Your task to perform on an android device: Open Wikipedia Image 0: 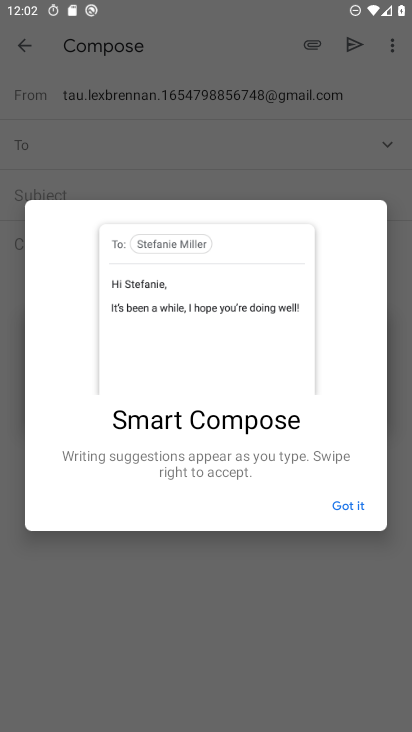
Step 0: press home button
Your task to perform on an android device: Open Wikipedia Image 1: 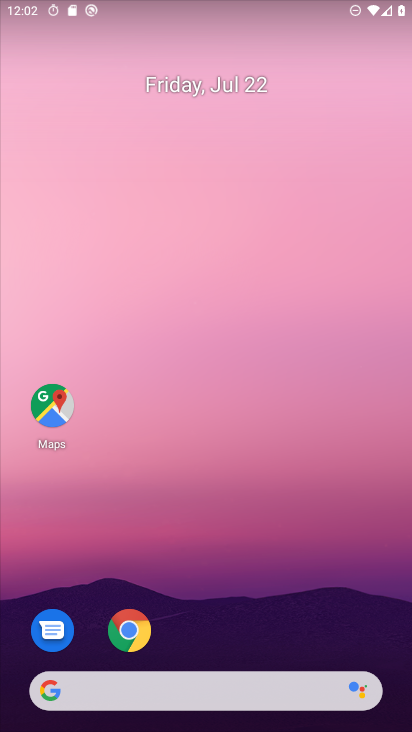
Step 1: click (49, 691)
Your task to perform on an android device: Open Wikipedia Image 2: 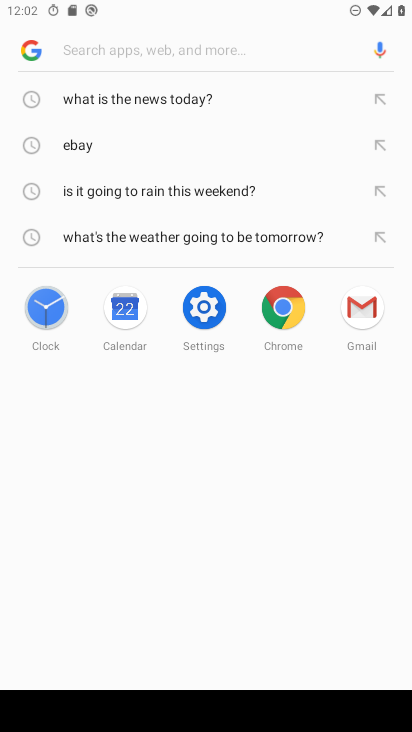
Step 2: type "Wikipedia"
Your task to perform on an android device: Open Wikipedia Image 3: 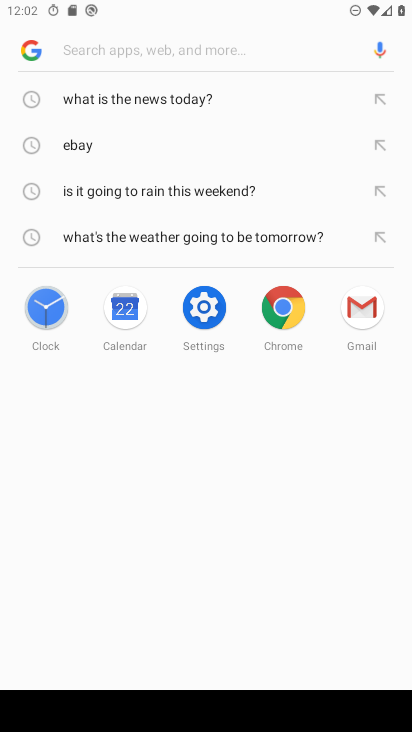
Step 3: click (87, 47)
Your task to perform on an android device: Open Wikipedia Image 4: 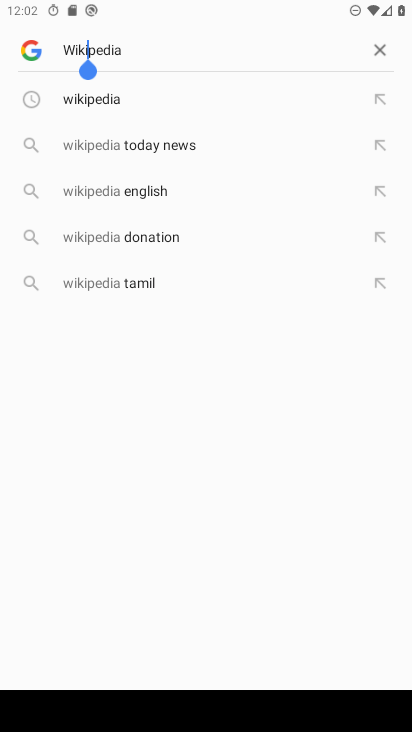
Step 4: press enter
Your task to perform on an android device: Open Wikipedia Image 5: 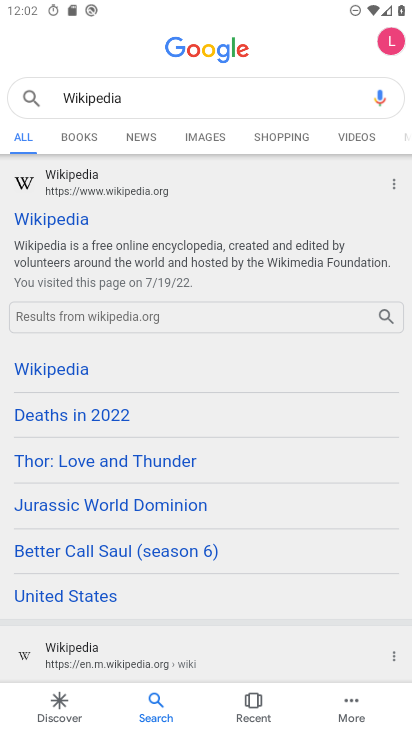
Step 5: click (51, 219)
Your task to perform on an android device: Open Wikipedia Image 6: 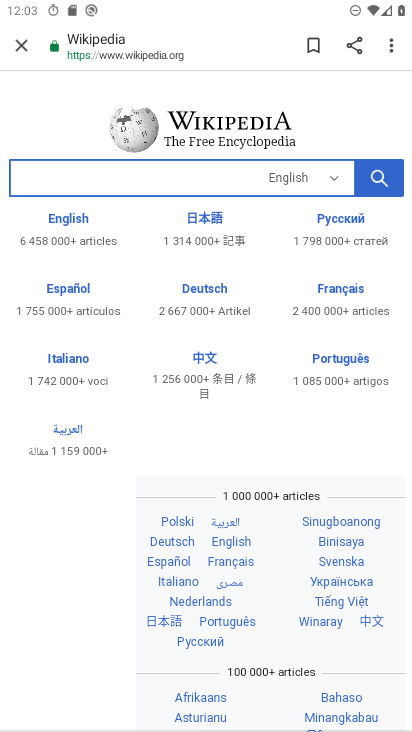
Step 6: task complete